Your task to perform on an android device: Turn off the flashlight Image 0: 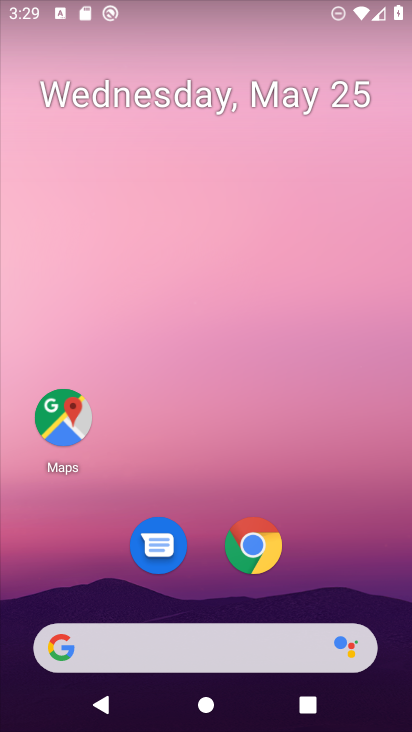
Step 0: drag from (348, 588) to (244, 201)
Your task to perform on an android device: Turn off the flashlight Image 1: 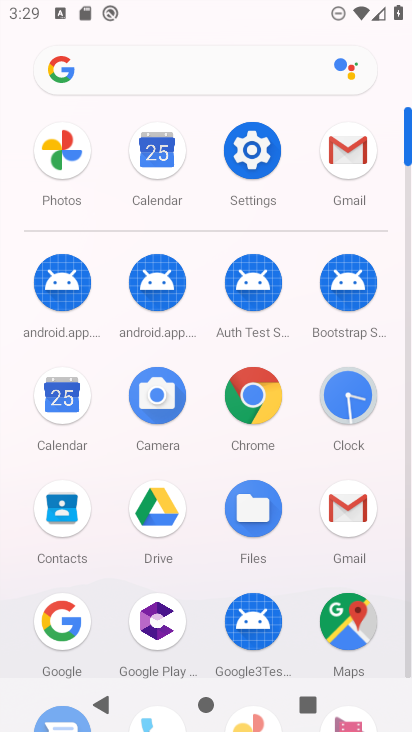
Step 1: click (258, 185)
Your task to perform on an android device: Turn off the flashlight Image 2: 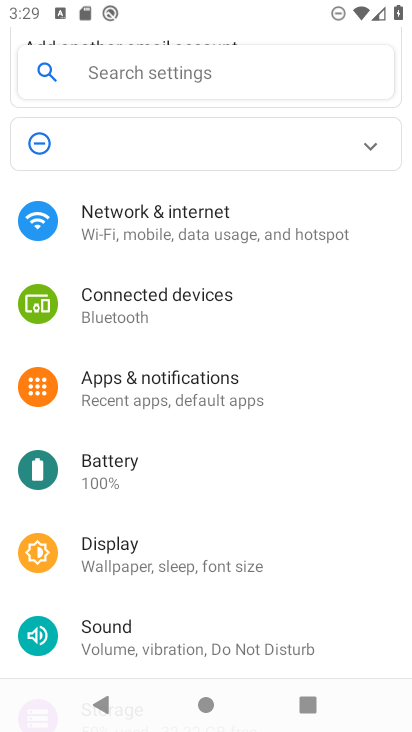
Step 2: click (183, 462)
Your task to perform on an android device: Turn off the flashlight Image 3: 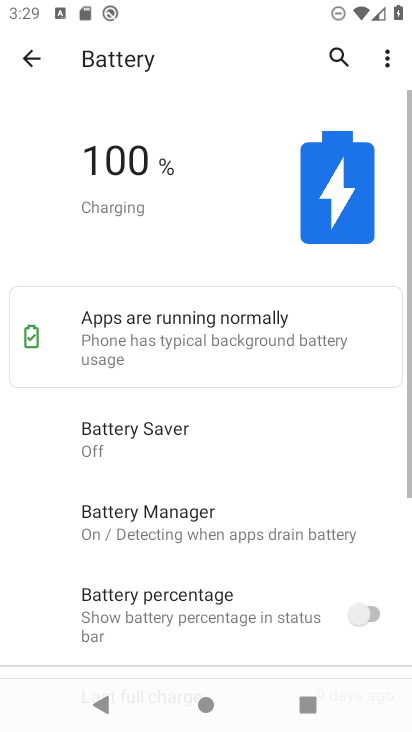
Step 3: task complete